Your task to perform on an android device: toggle wifi Image 0: 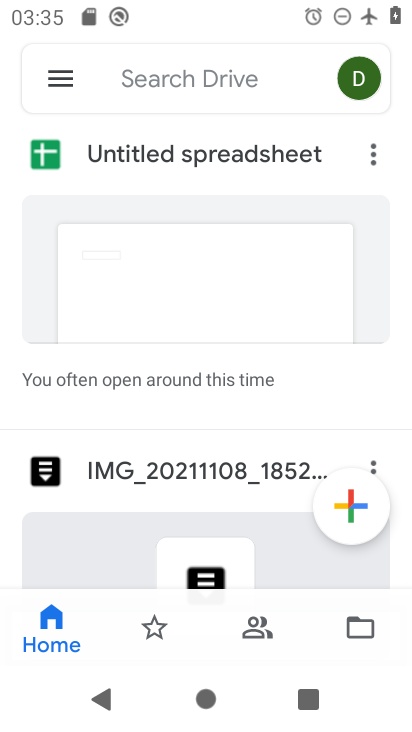
Step 0: press home button
Your task to perform on an android device: toggle wifi Image 1: 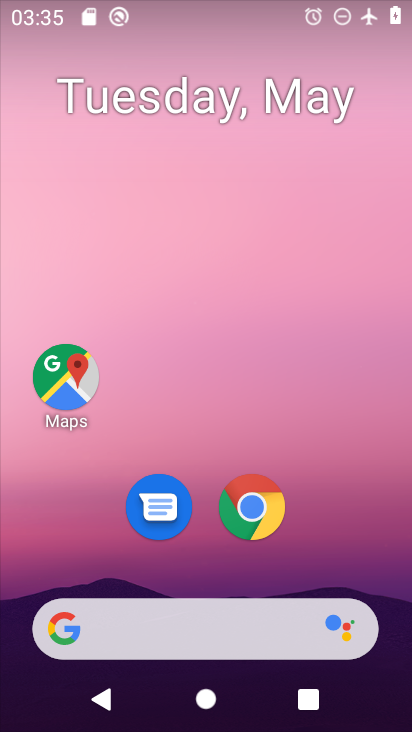
Step 1: drag from (206, 578) to (246, 117)
Your task to perform on an android device: toggle wifi Image 2: 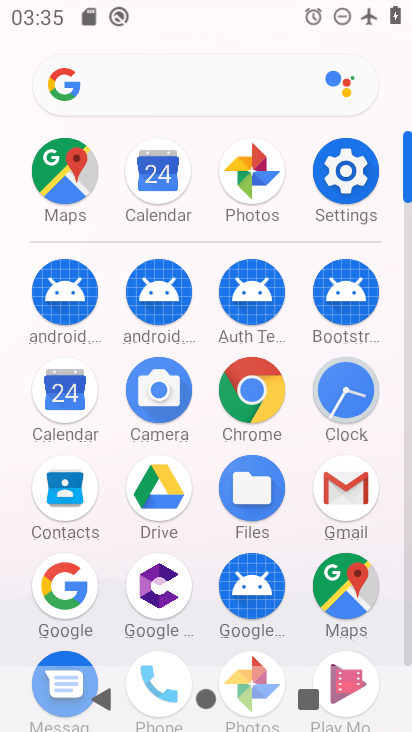
Step 2: click (332, 173)
Your task to perform on an android device: toggle wifi Image 3: 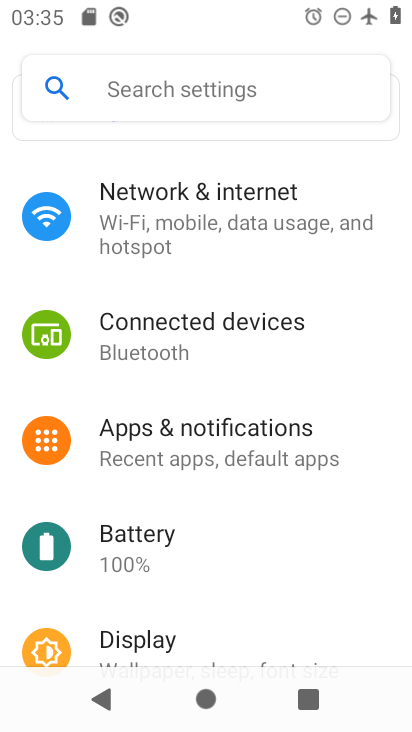
Step 3: click (202, 196)
Your task to perform on an android device: toggle wifi Image 4: 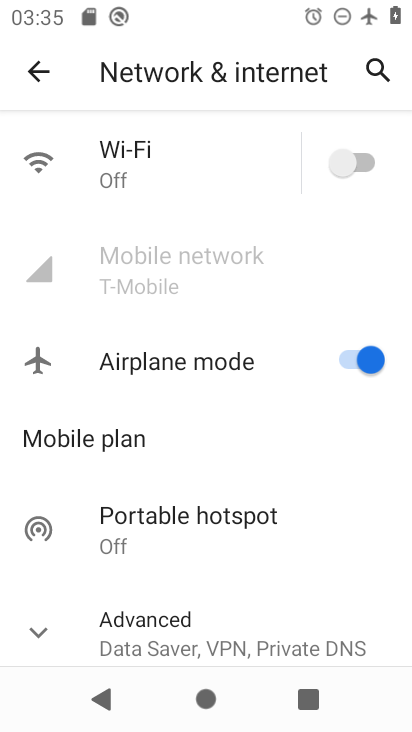
Step 4: click (359, 155)
Your task to perform on an android device: toggle wifi Image 5: 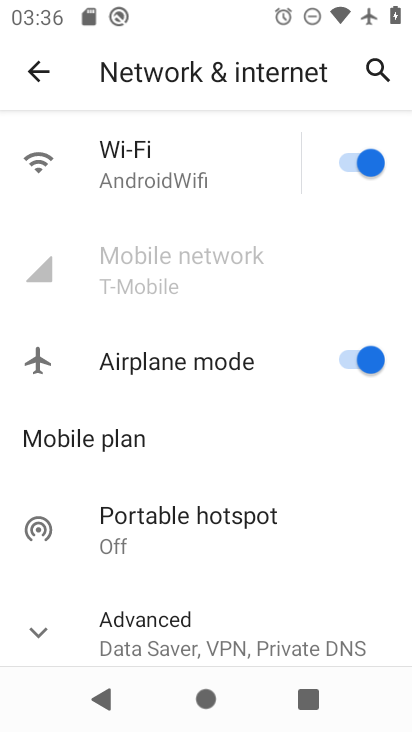
Step 5: task complete